Your task to perform on an android device: Check the news Image 0: 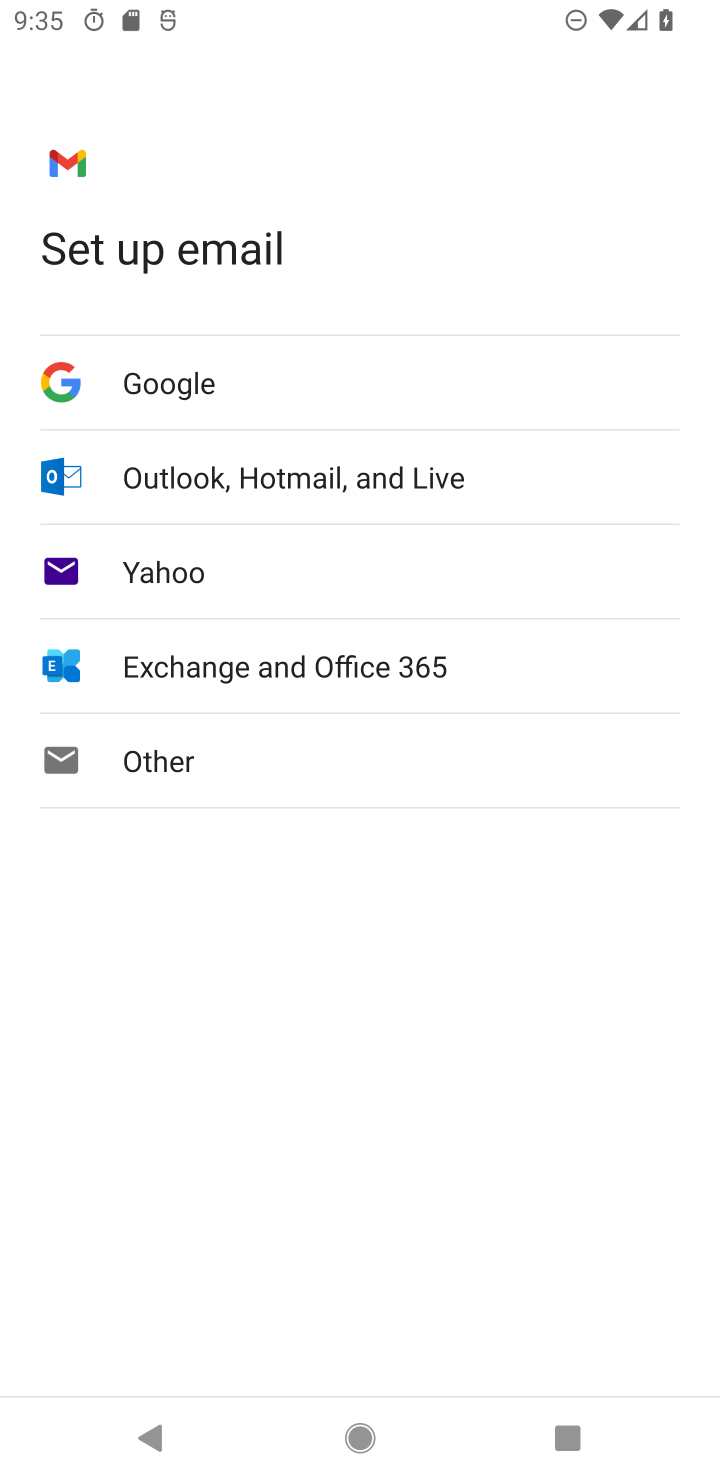
Step 0: press home button
Your task to perform on an android device: Check the news Image 1: 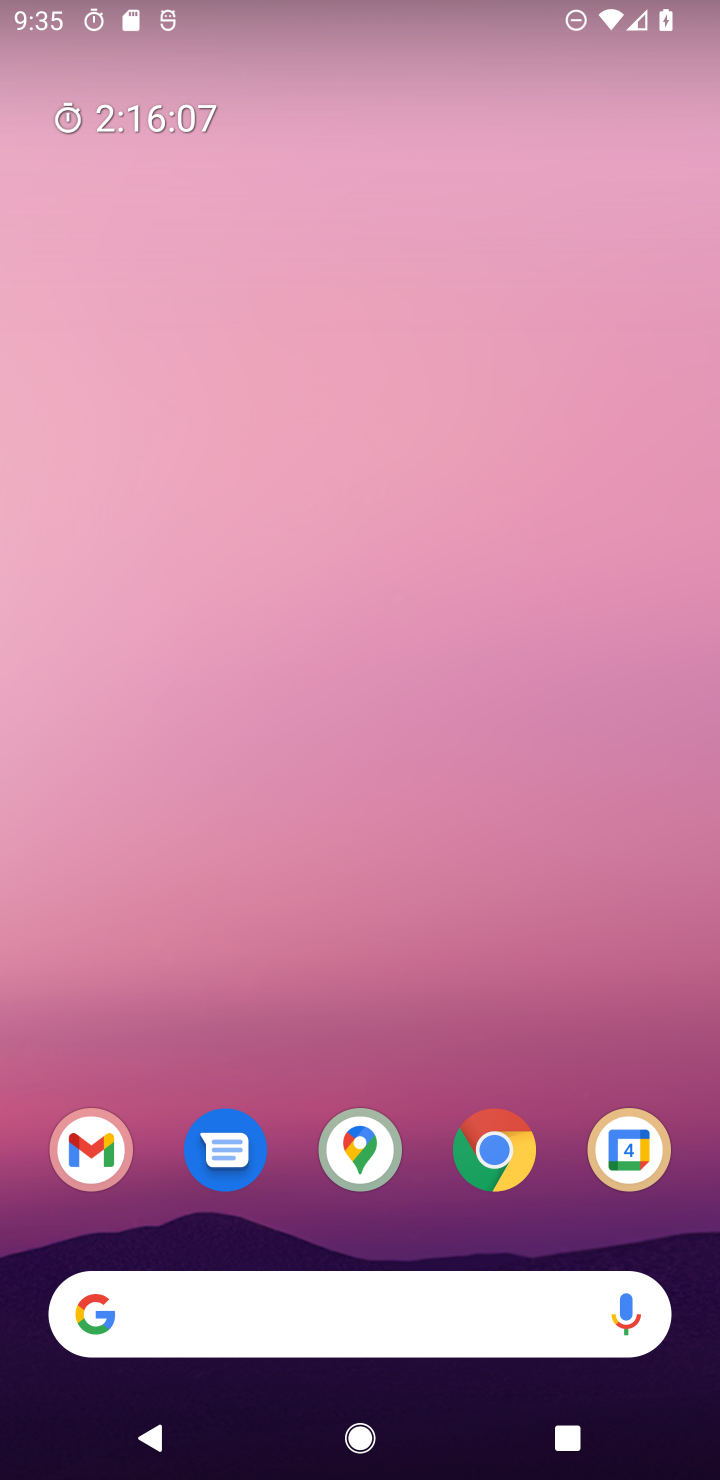
Step 1: drag from (363, 1332) to (707, 936)
Your task to perform on an android device: Check the news Image 2: 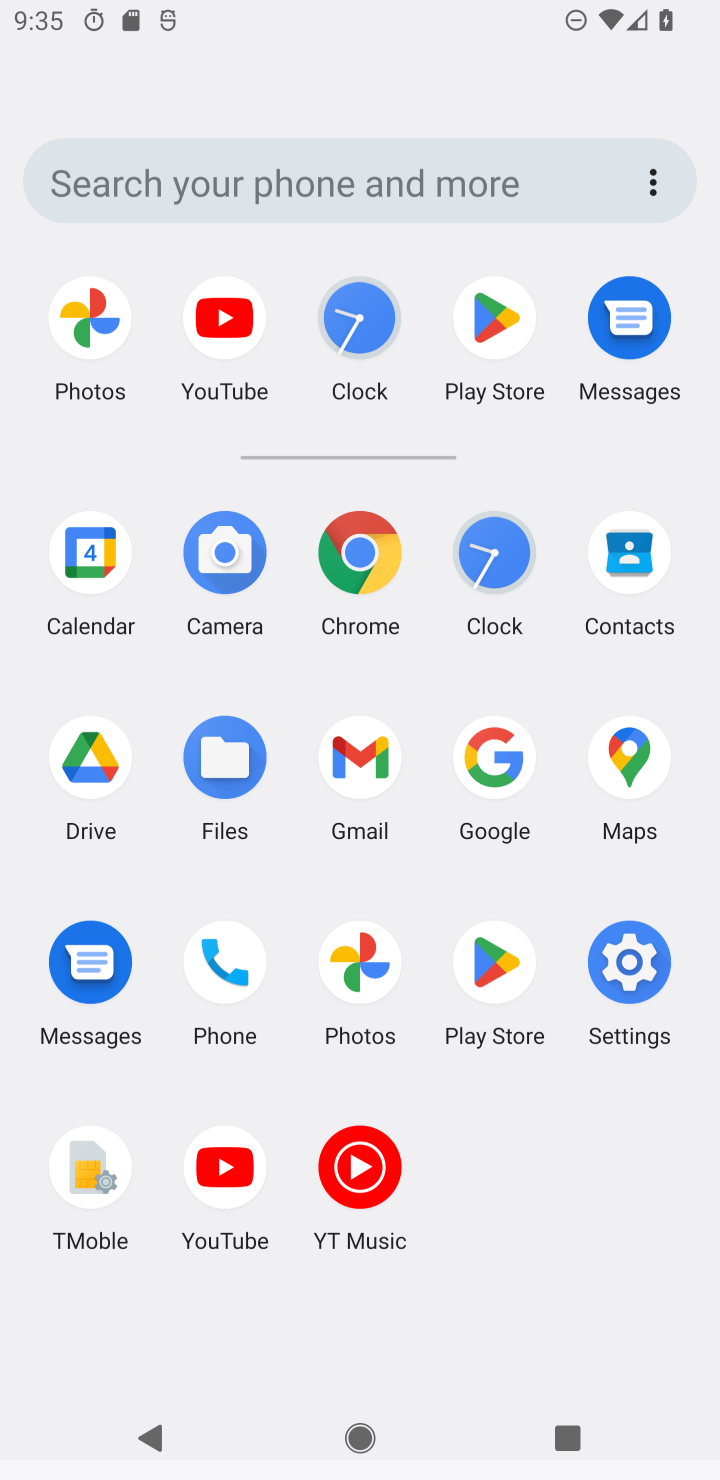
Step 2: click (353, 502)
Your task to perform on an android device: Check the news Image 3: 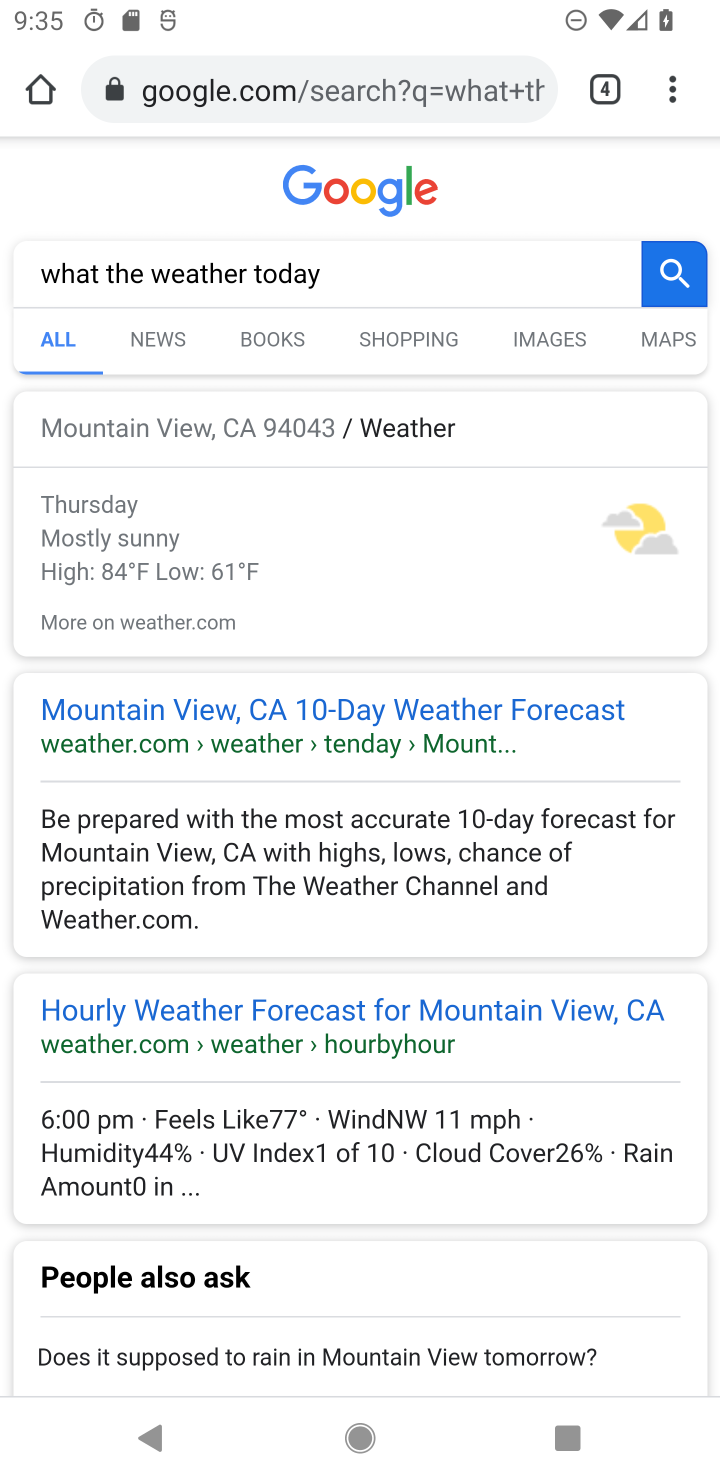
Step 3: click (468, 89)
Your task to perform on an android device: Check the news Image 4: 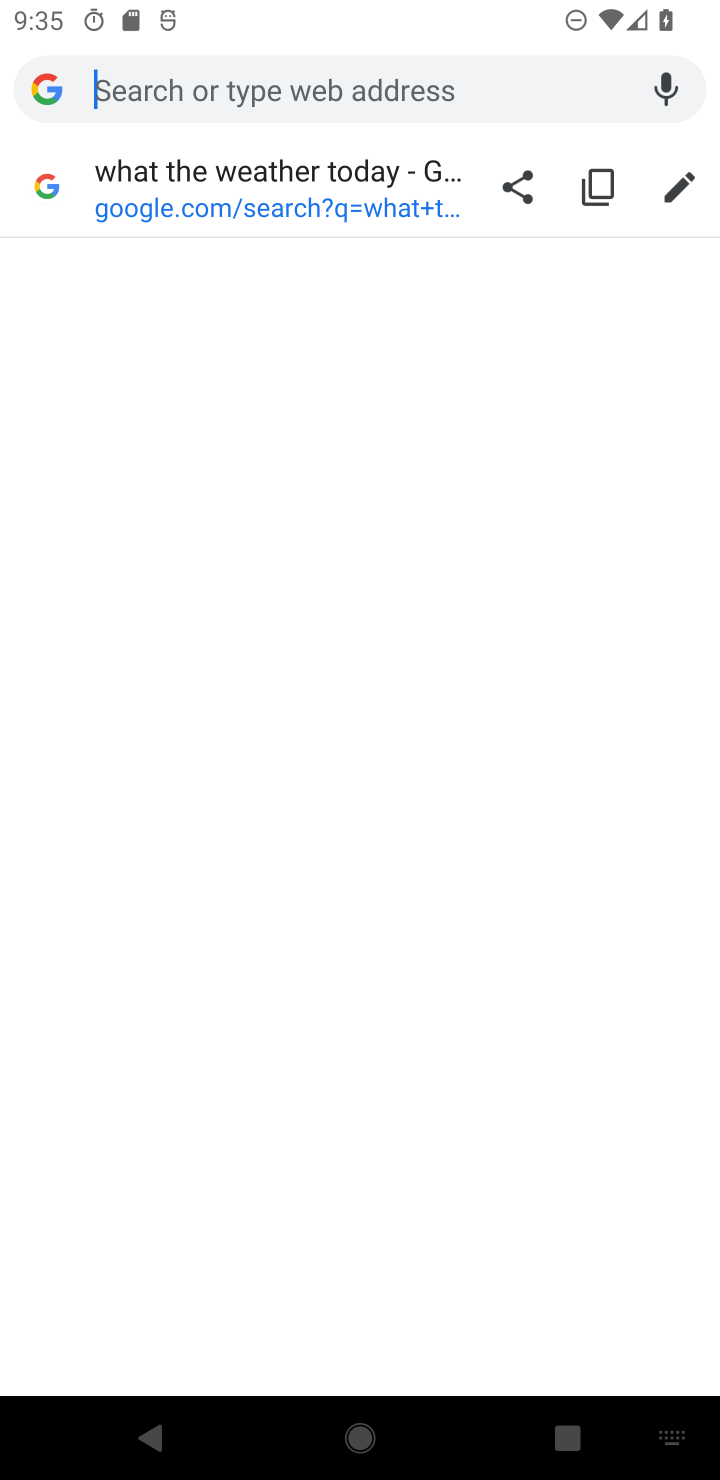
Step 4: type "check the news"
Your task to perform on an android device: Check the news Image 5: 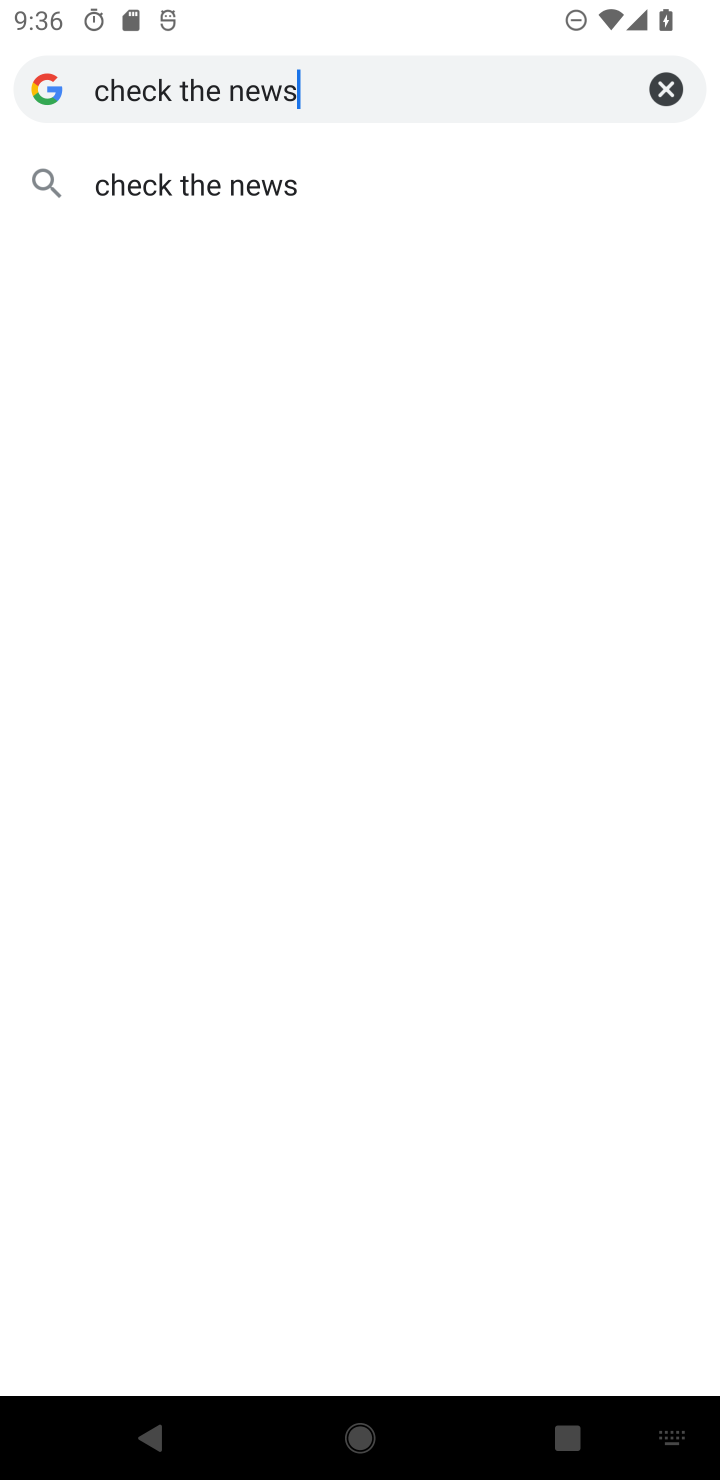
Step 5: click (196, 185)
Your task to perform on an android device: Check the news Image 6: 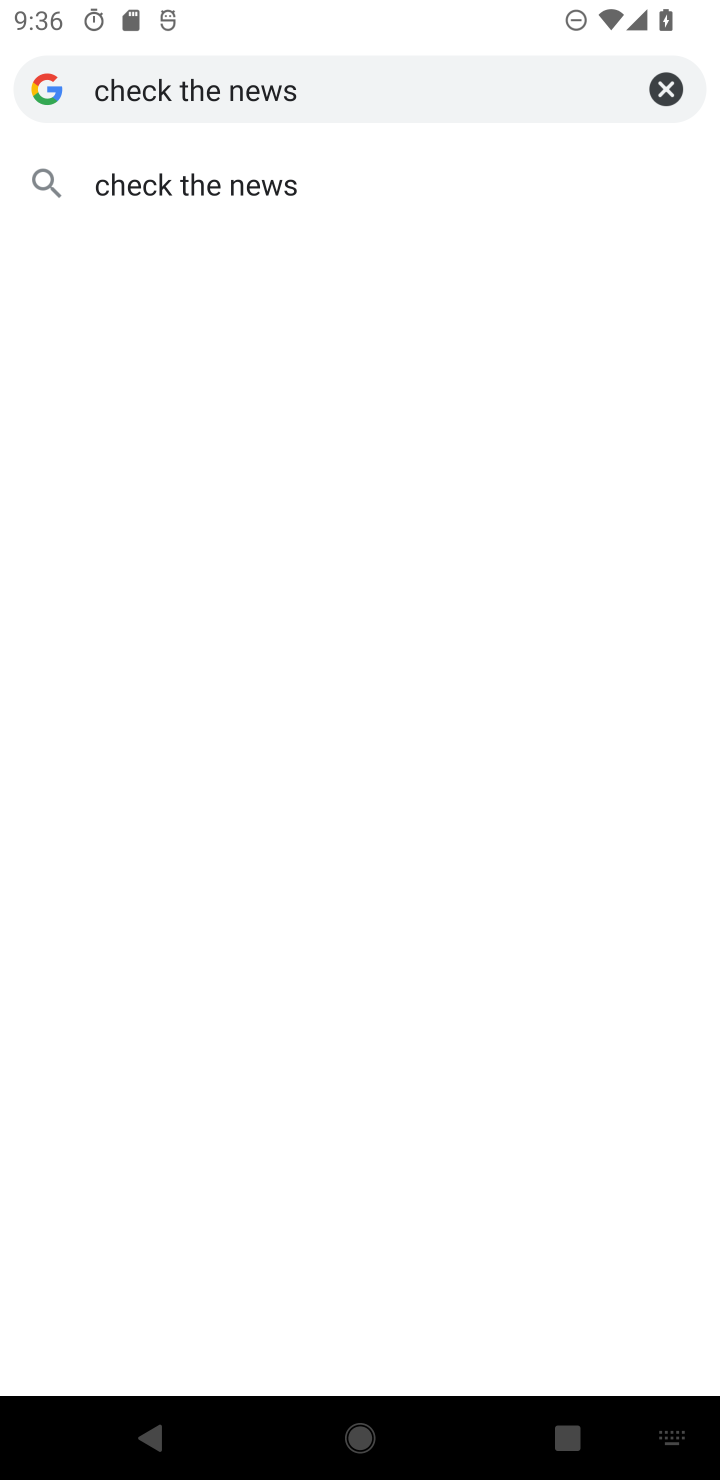
Step 6: drag from (215, 170) to (338, 236)
Your task to perform on an android device: Check the news Image 7: 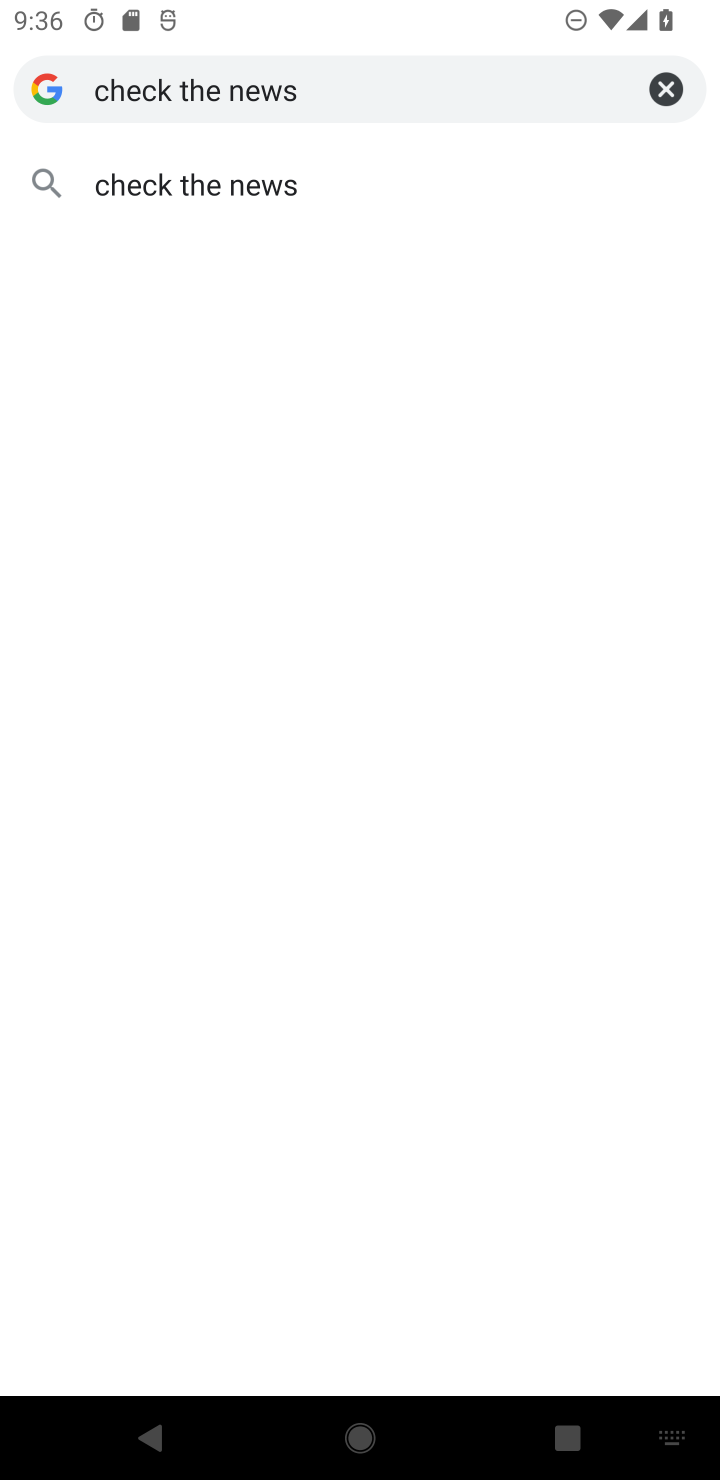
Step 7: click (287, 183)
Your task to perform on an android device: Check the news Image 8: 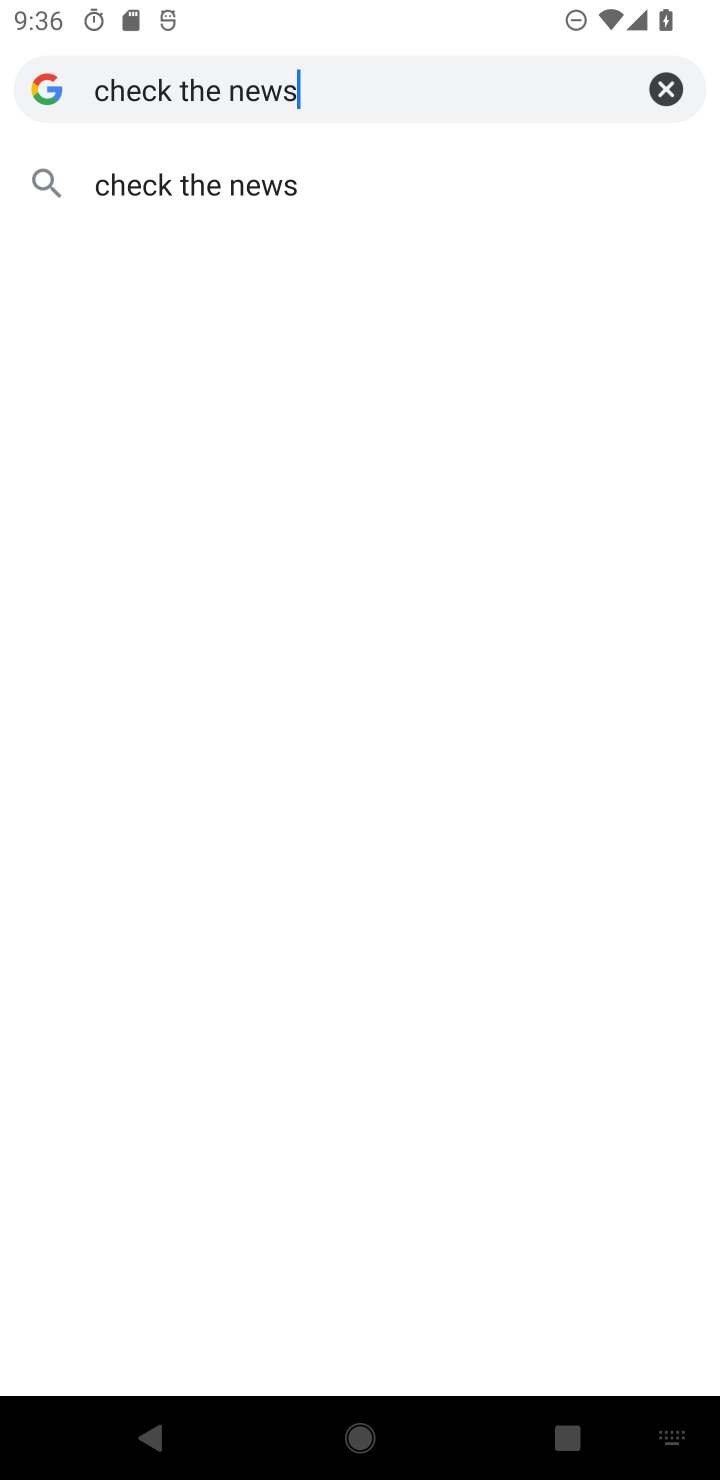
Step 8: click (272, 183)
Your task to perform on an android device: Check the news Image 9: 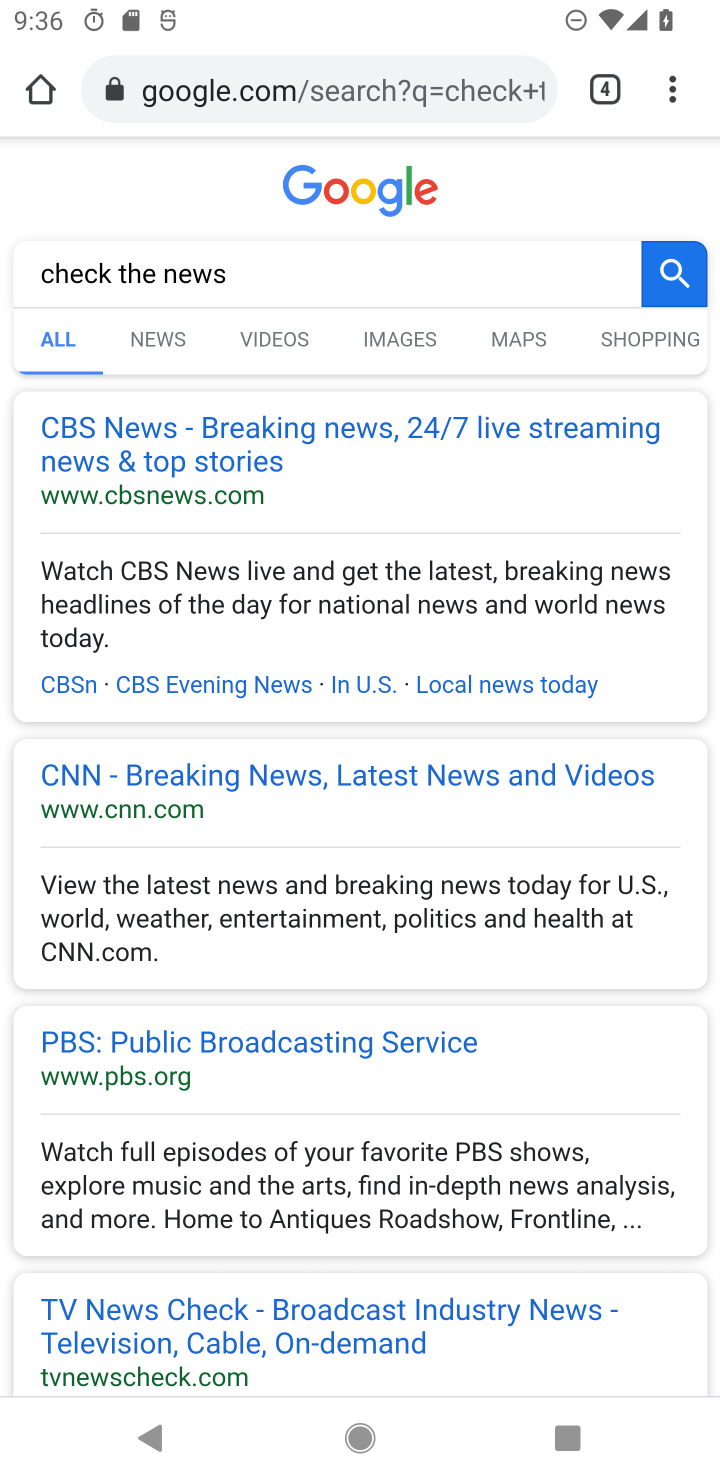
Step 9: task complete